Your task to perform on an android device: What's the weather going to be this weekend? Image 0: 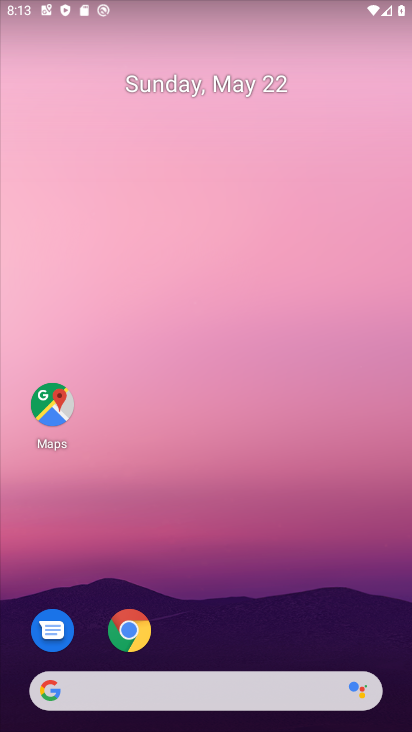
Step 0: click (191, 689)
Your task to perform on an android device: What's the weather going to be this weekend? Image 1: 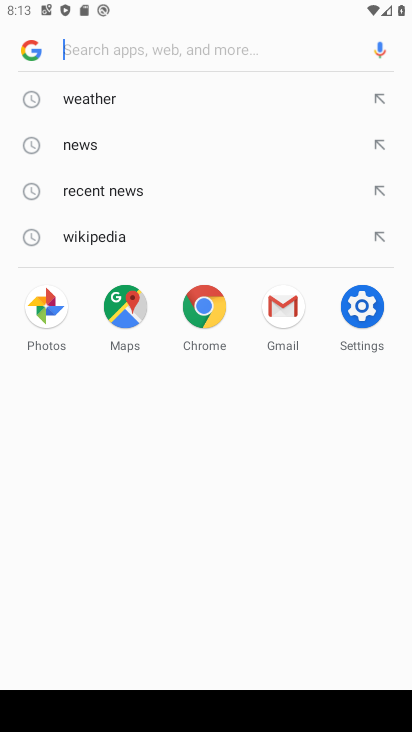
Step 1: click (130, 95)
Your task to perform on an android device: What's the weather going to be this weekend? Image 2: 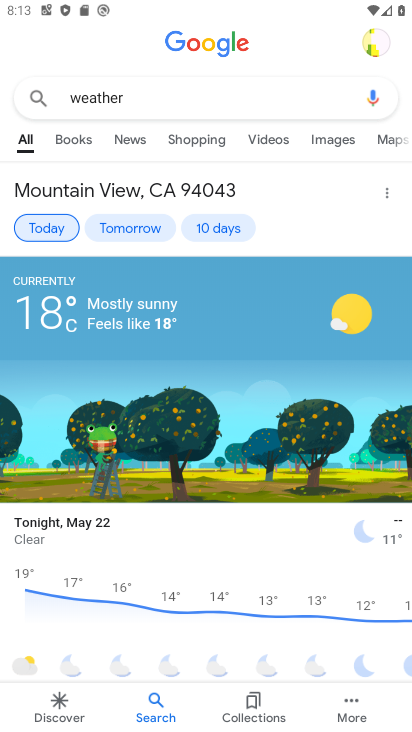
Step 2: click (229, 227)
Your task to perform on an android device: What's the weather going to be this weekend? Image 3: 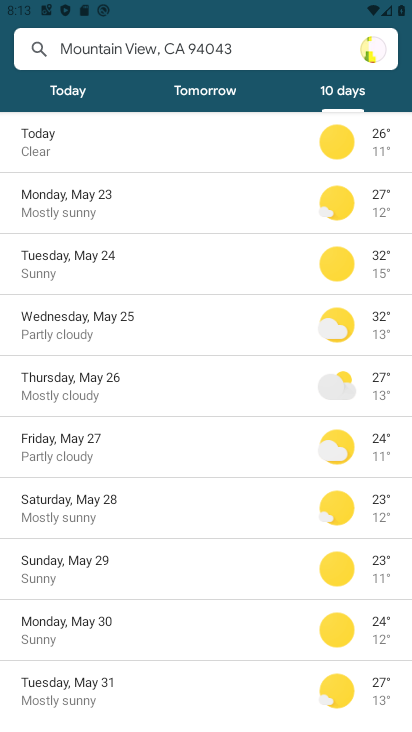
Step 3: drag from (210, 551) to (216, 435)
Your task to perform on an android device: What's the weather going to be this weekend? Image 4: 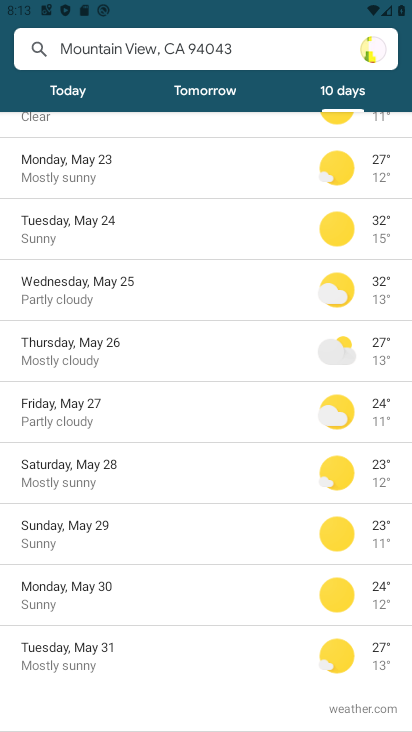
Step 4: drag from (227, 594) to (223, 428)
Your task to perform on an android device: What's the weather going to be this weekend? Image 5: 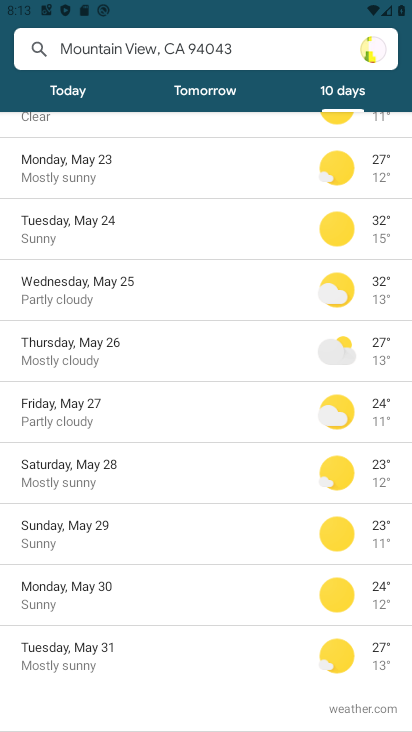
Step 5: drag from (229, 598) to (224, 481)
Your task to perform on an android device: What's the weather going to be this weekend? Image 6: 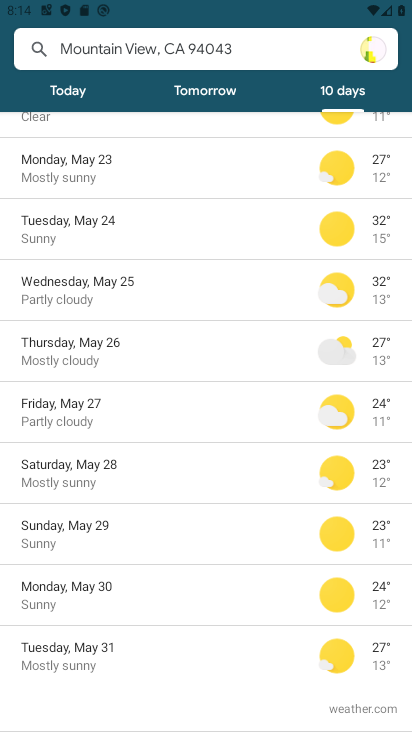
Step 6: drag from (222, 636) to (234, 475)
Your task to perform on an android device: What's the weather going to be this weekend? Image 7: 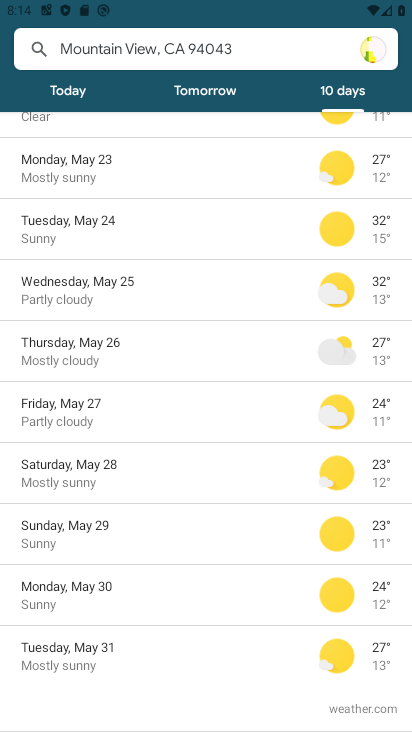
Step 7: drag from (234, 606) to (229, 379)
Your task to perform on an android device: What's the weather going to be this weekend? Image 8: 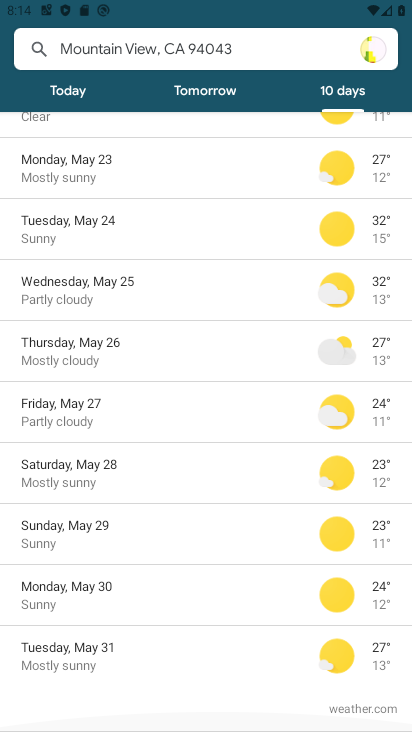
Step 8: drag from (236, 280) to (223, 432)
Your task to perform on an android device: What's the weather going to be this weekend? Image 9: 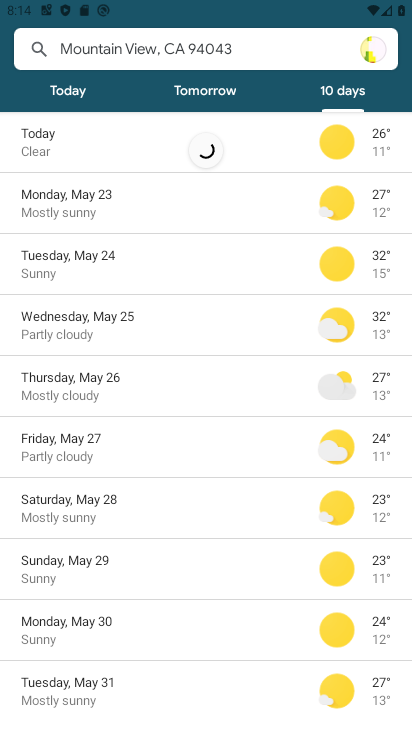
Step 9: drag from (217, 255) to (222, 453)
Your task to perform on an android device: What's the weather going to be this weekend? Image 10: 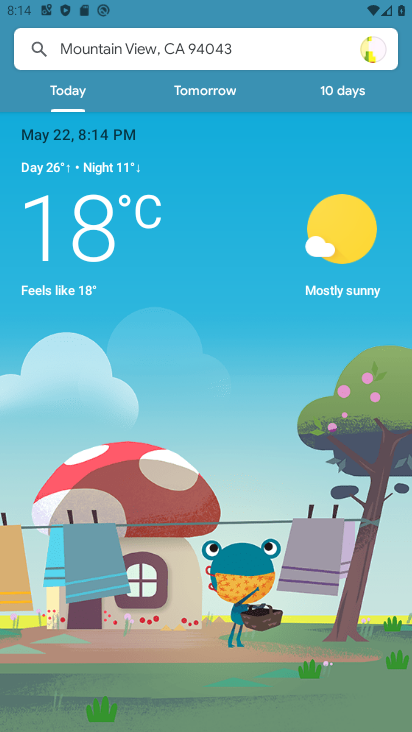
Step 10: click (356, 93)
Your task to perform on an android device: What's the weather going to be this weekend? Image 11: 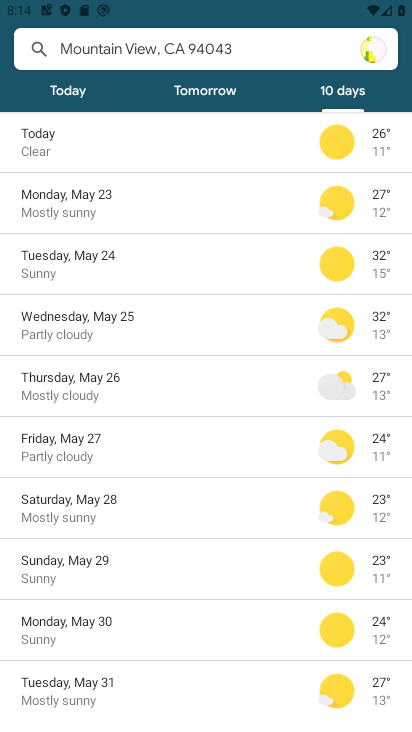
Step 11: task complete